Your task to perform on an android device: show emergency info Image 0: 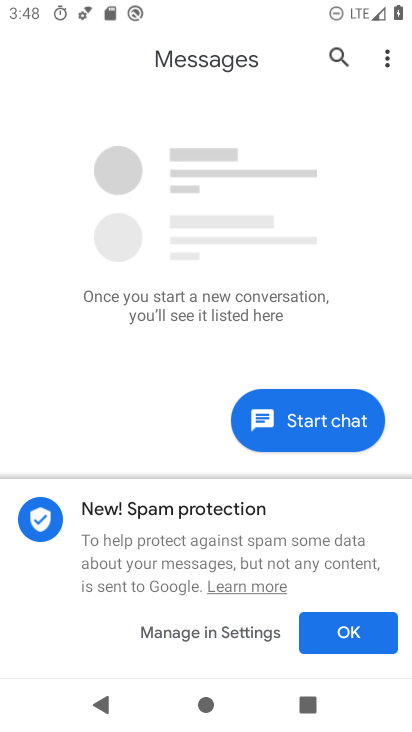
Step 0: press home button
Your task to perform on an android device: show emergency info Image 1: 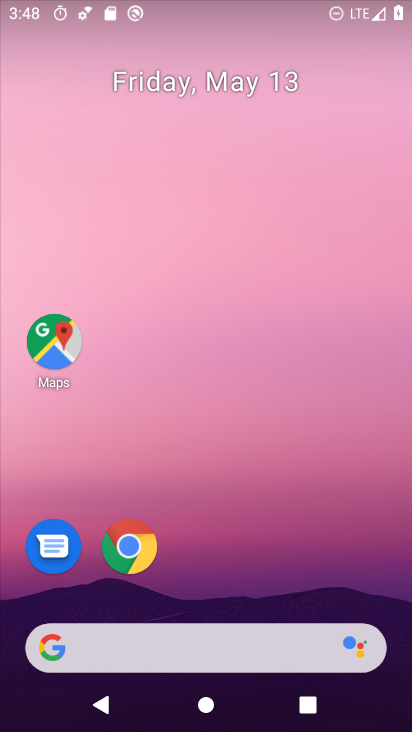
Step 1: drag from (272, 659) to (290, 211)
Your task to perform on an android device: show emergency info Image 2: 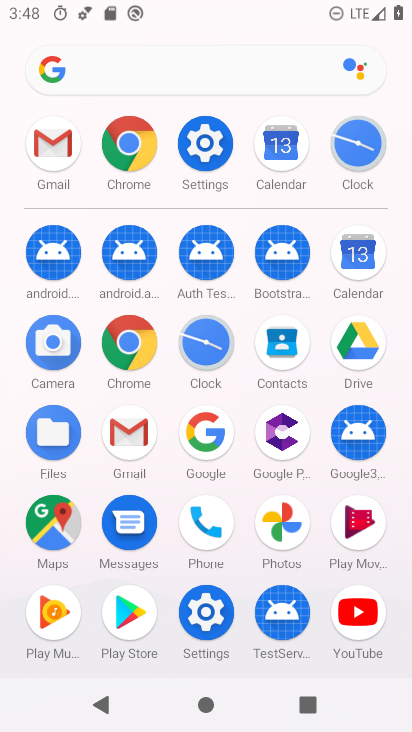
Step 2: click (214, 154)
Your task to perform on an android device: show emergency info Image 3: 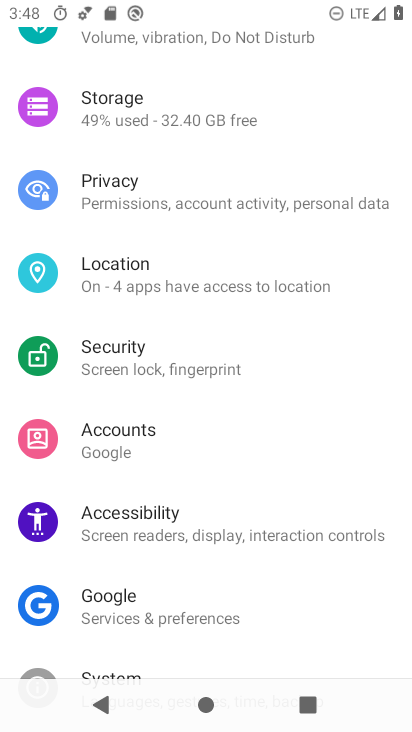
Step 3: drag from (202, 491) to (227, 280)
Your task to perform on an android device: show emergency info Image 4: 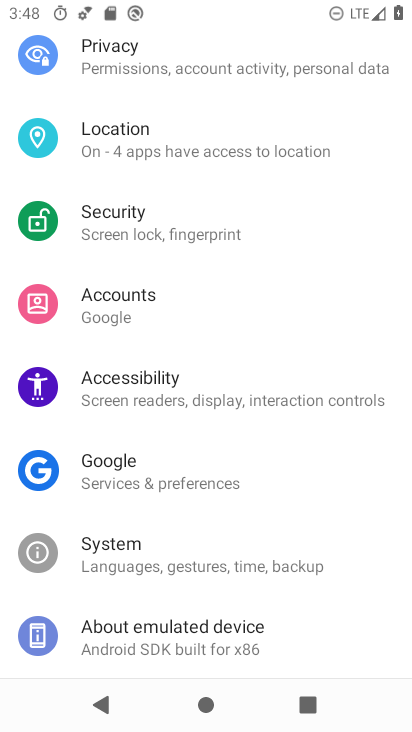
Step 4: drag from (221, 484) to (245, 338)
Your task to perform on an android device: show emergency info Image 5: 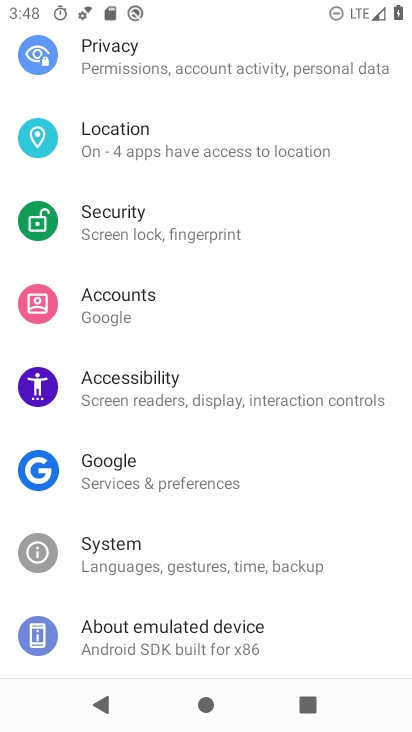
Step 5: drag from (236, 382) to (226, 522)
Your task to perform on an android device: show emergency info Image 6: 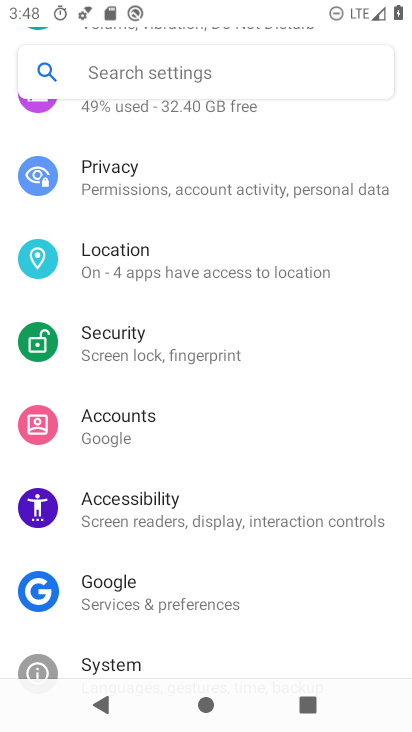
Step 6: drag from (250, 383) to (248, 569)
Your task to perform on an android device: show emergency info Image 7: 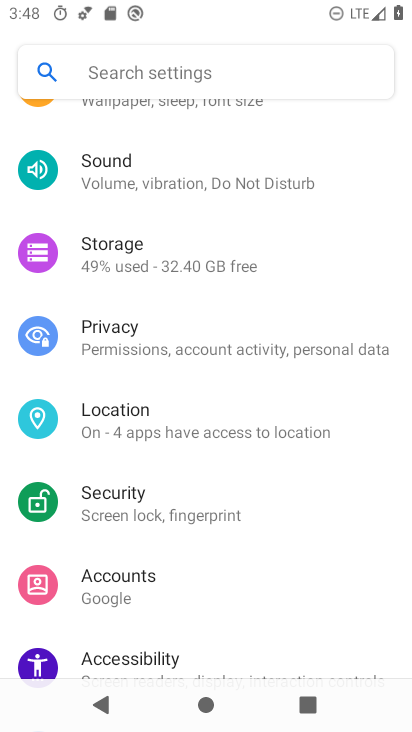
Step 7: drag from (245, 386) to (245, 601)
Your task to perform on an android device: show emergency info Image 8: 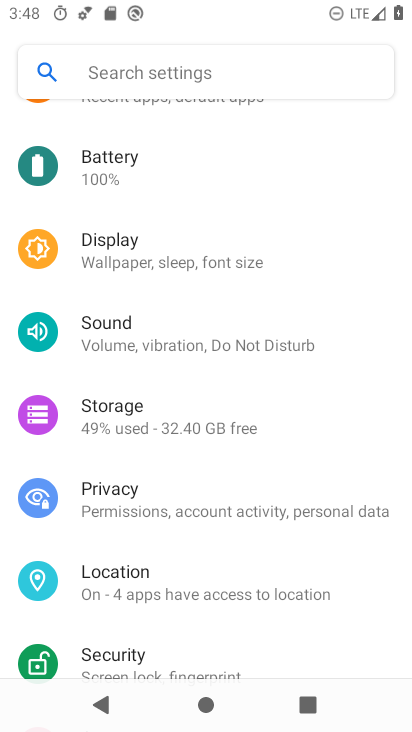
Step 8: drag from (251, 366) to (251, 580)
Your task to perform on an android device: show emergency info Image 9: 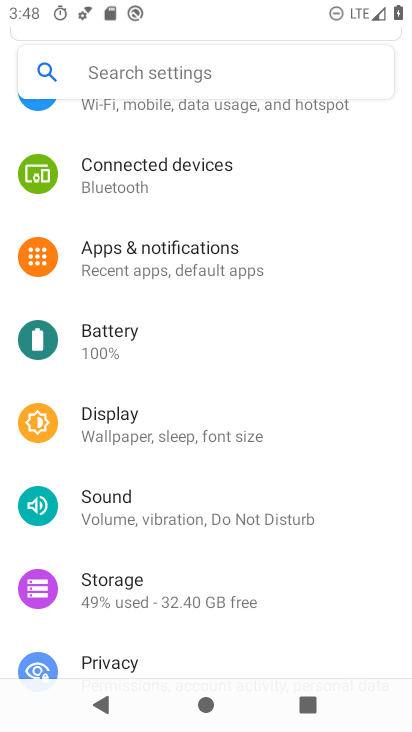
Step 9: drag from (251, 359) to (250, 529)
Your task to perform on an android device: show emergency info Image 10: 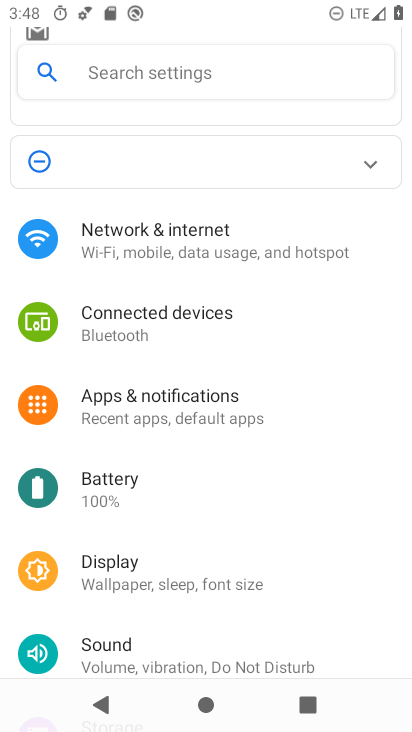
Step 10: drag from (279, 452) to (409, 116)
Your task to perform on an android device: show emergency info Image 11: 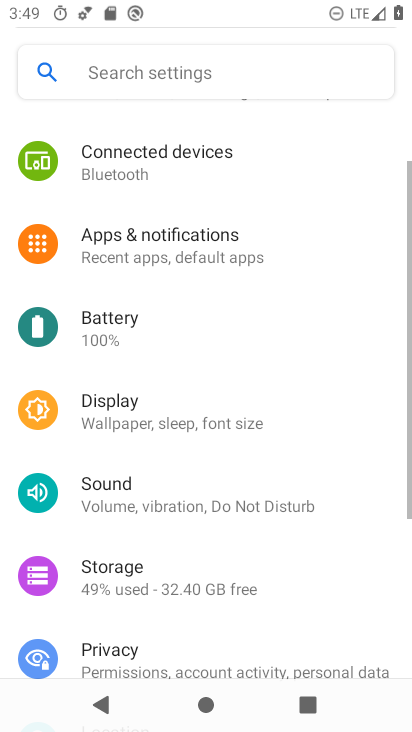
Step 11: drag from (256, 533) to (325, 34)
Your task to perform on an android device: show emergency info Image 12: 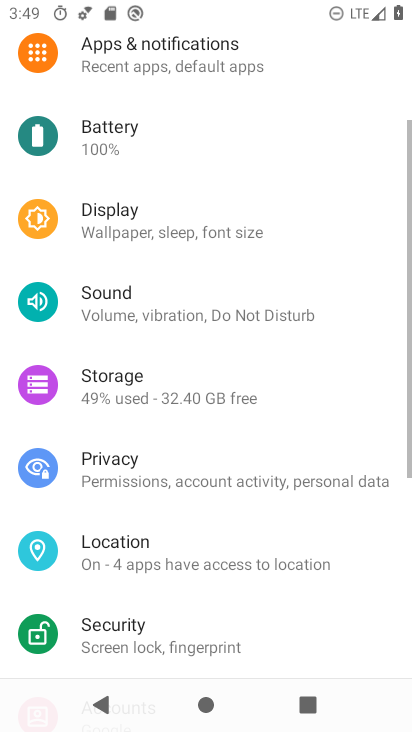
Step 12: drag from (206, 537) to (408, 153)
Your task to perform on an android device: show emergency info Image 13: 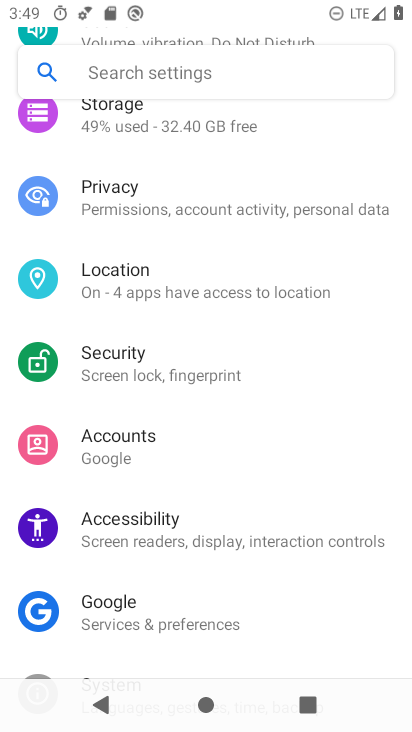
Step 13: drag from (168, 529) to (291, 107)
Your task to perform on an android device: show emergency info Image 14: 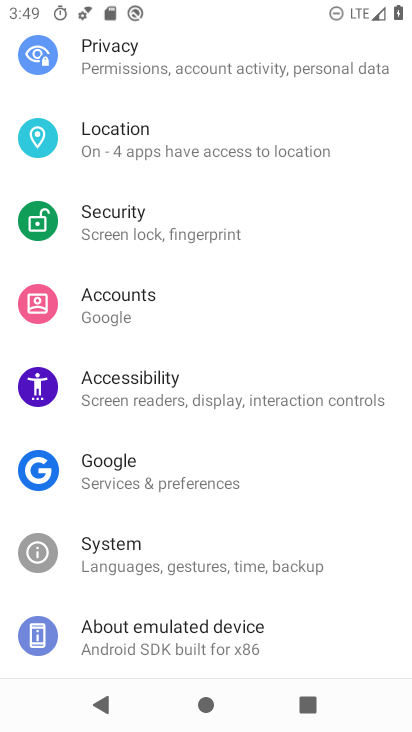
Step 14: drag from (261, 337) to (275, 293)
Your task to perform on an android device: show emergency info Image 15: 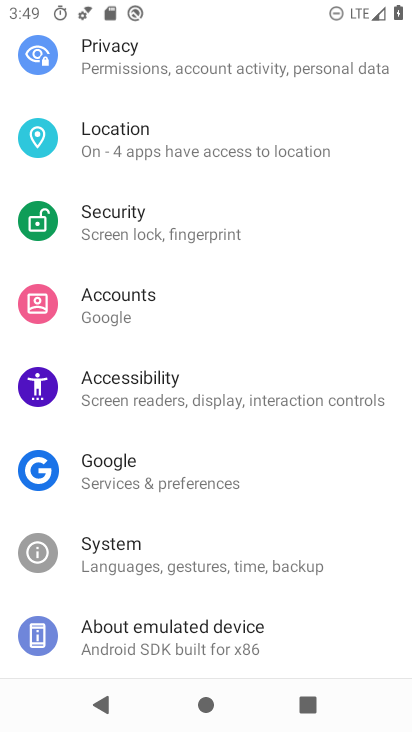
Step 15: click (232, 645)
Your task to perform on an android device: show emergency info Image 16: 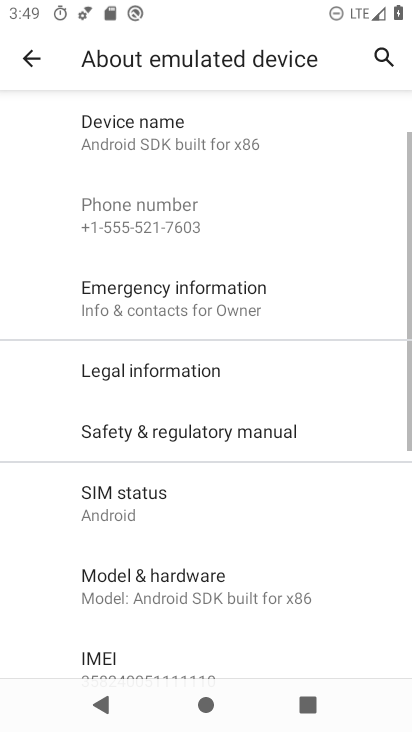
Step 16: click (311, 291)
Your task to perform on an android device: show emergency info Image 17: 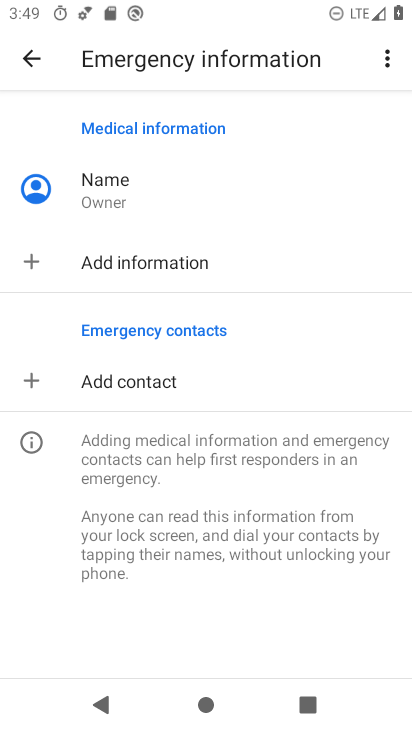
Step 17: task complete